Your task to perform on an android device: turn off location Image 0: 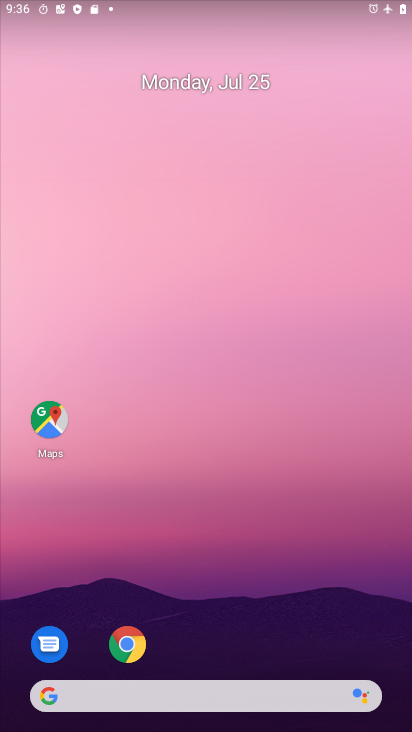
Step 0: drag from (254, 601) to (48, 43)
Your task to perform on an android device: turn off location Image 1: 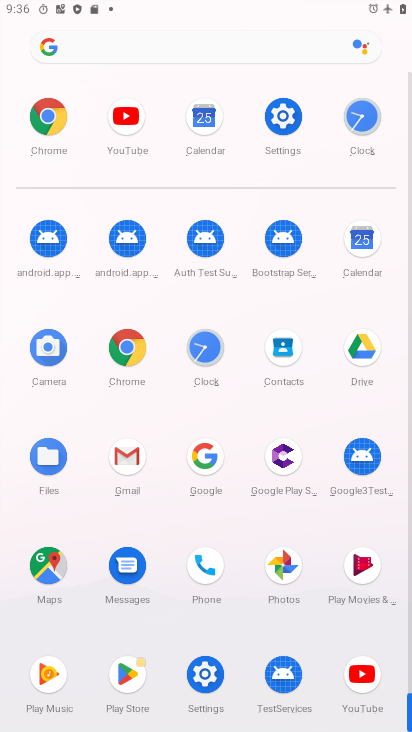
Step 1: click (269, 123)
Your task to perform on an android device: turn off location Image 2: 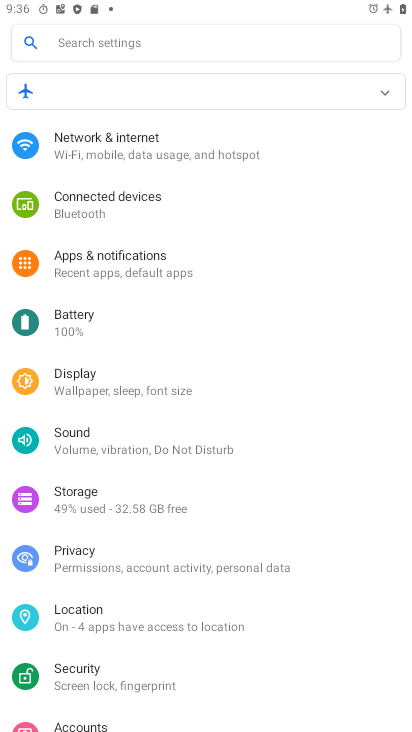
Step 2: click (151, 612)
Your task to perform on an android device: turn off location Image 3: 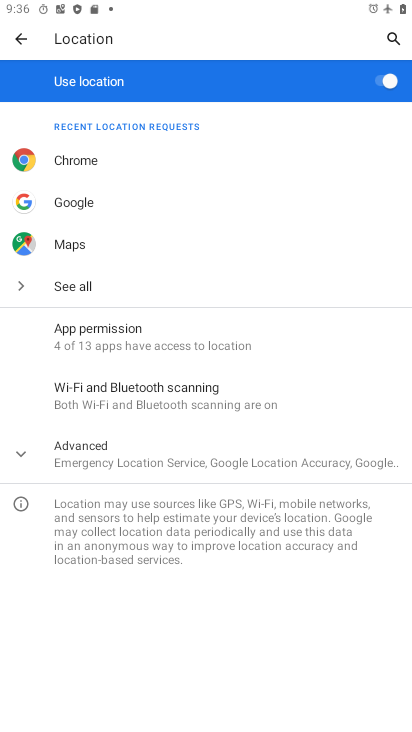
Step 3: click (387, 88)
Your task to perform on an android device: turn off location Image 4: 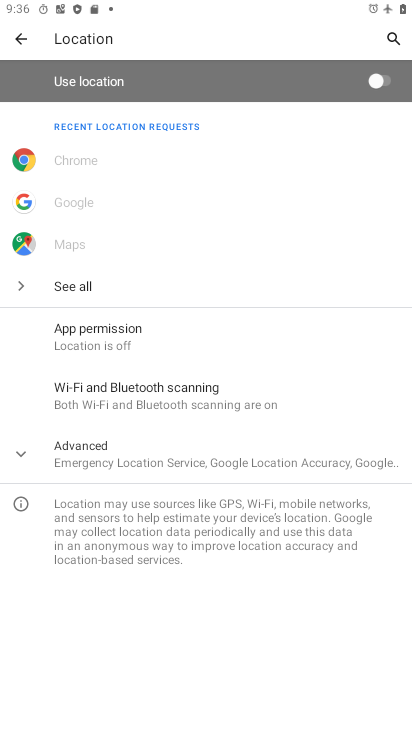
Step 4: task complete